Your task to perform on an android device: What's the weather going to be tomorrow? Image 0: 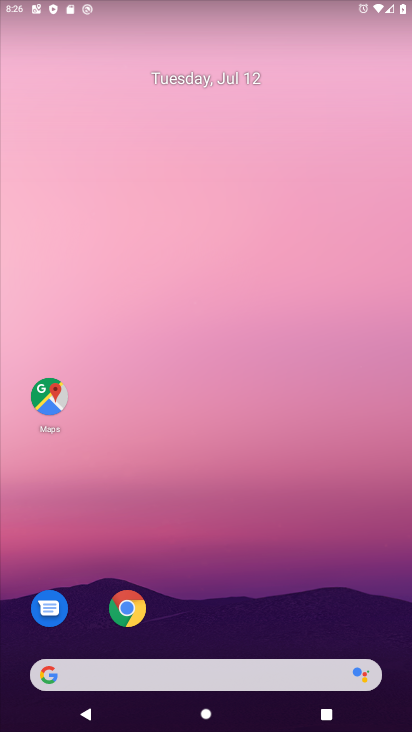
Step 0: click (103, 675)
Your task to perform on an android device: What's the weather going to be tomorrow? Image 1: 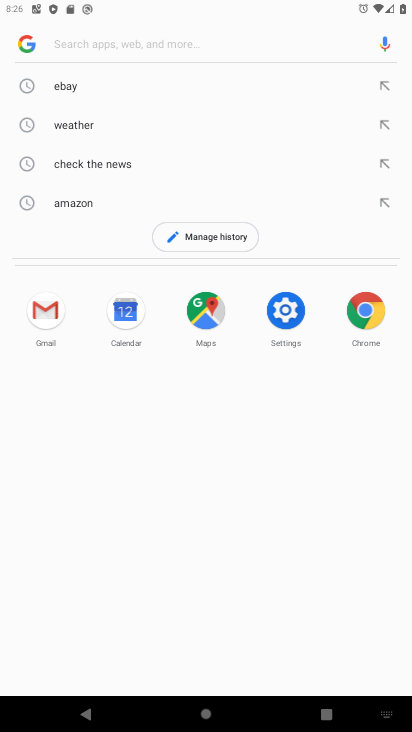
Step 1: type "what's the weather going to be tomorrow"
Your task to perform on an android device: What's the weather going to be tomorrow? Image 2: 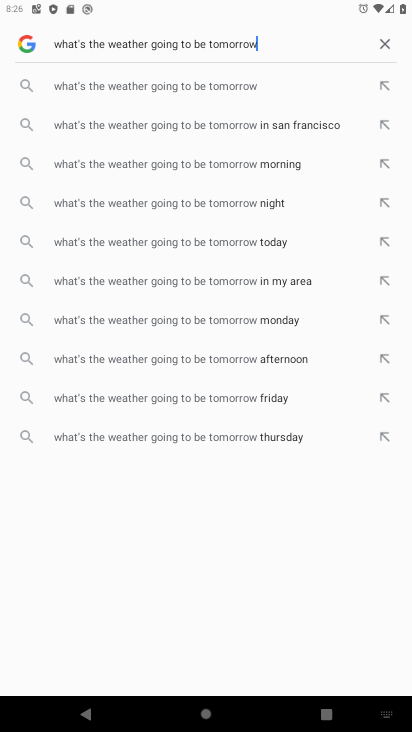
Step 2: click (109, 81)
Your task to perform on an android device: What's the weather going to be tomorrow? Image 3: 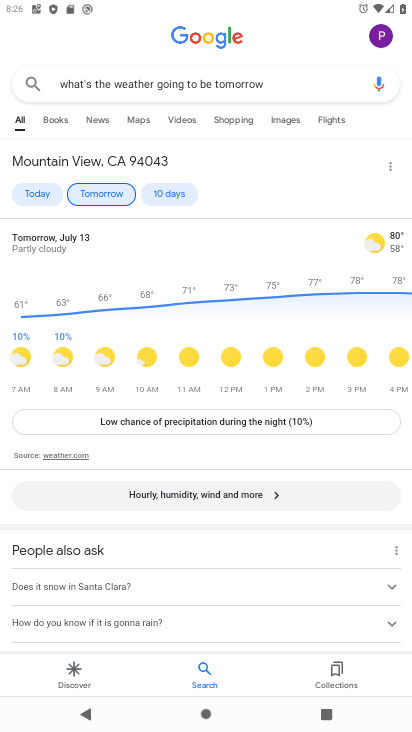
Step 3: task complete